Your task to perform on an android device: turn pop-ups on in chrome Image 0: 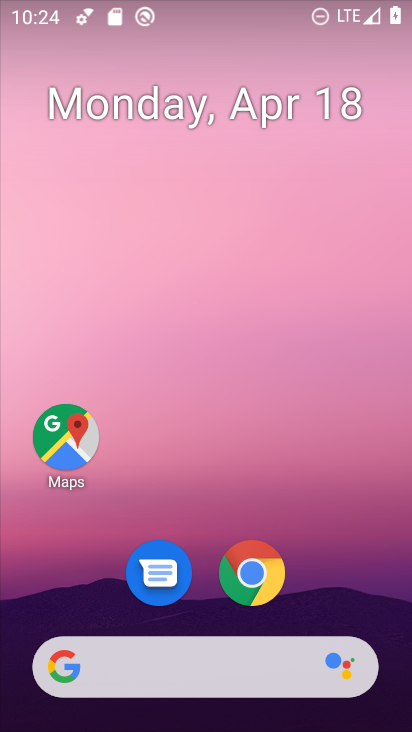
Step 0: drag from (364, 588) to (288, 24)
Your task to perform on an android device: turn pop-ups on in chrome Image 1: 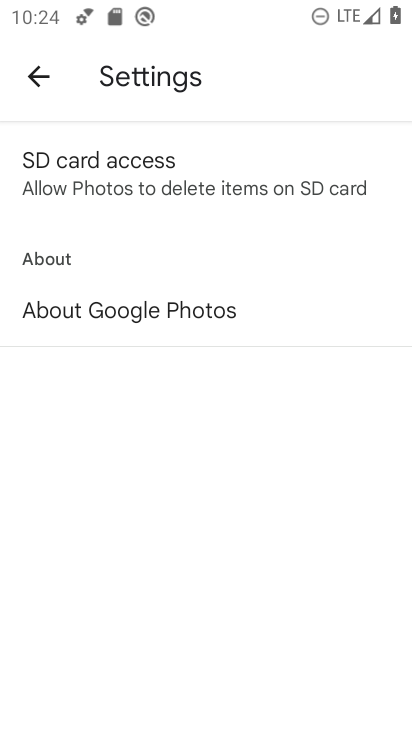
Step 1: press home button
Your task to perform on an android device: turn pop-ups on in chrome Image 2: 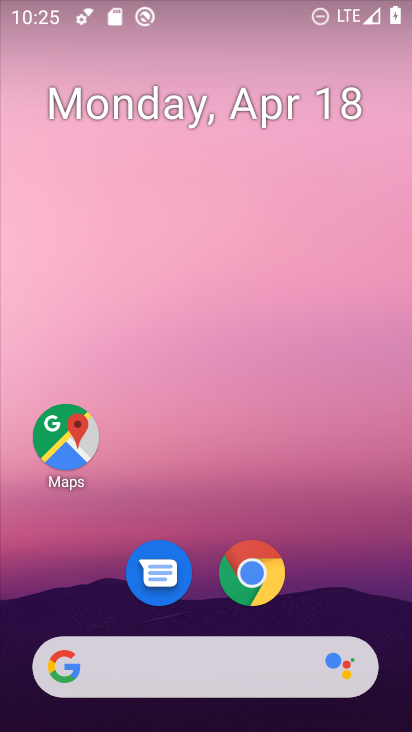
Step 2: drag from (339, 603) to (225, 84)
Your task to perform on an android device: turn pop-ups on in chrome Image 3: 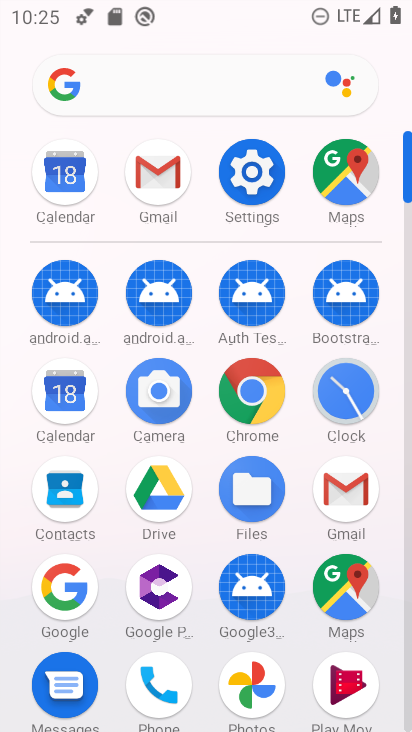
Step 3: click (269, 396)
Your task to perform on an android device: turn pop-ups on in chrome Image 4: 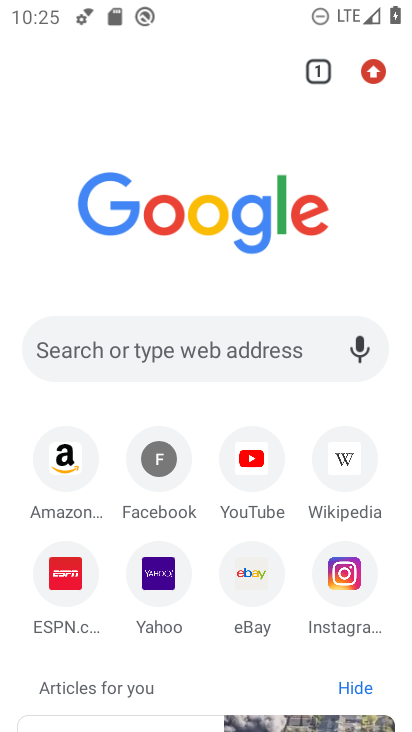
Step 4: click (369, 69)
Your task to perform on an android device: turn pop-ups on in chrome Image 5: 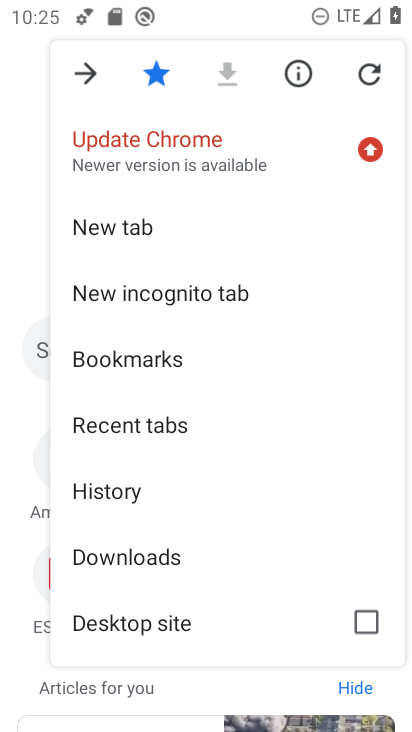
Step 5: drag from (158, 590) to (214, 181)
Your task to perform on an android device: turn pop-ups on in chrome Image 6: 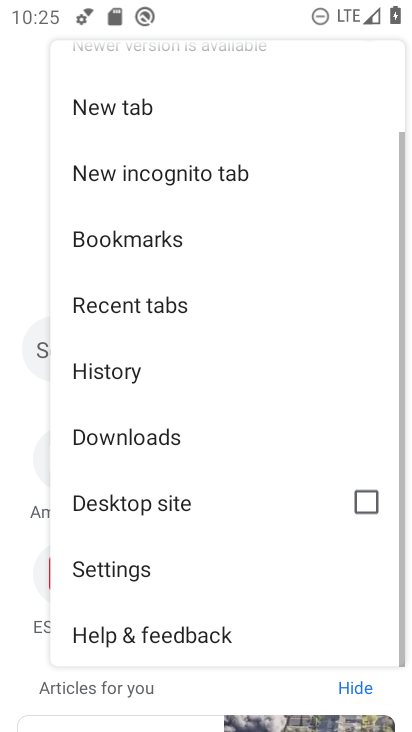
Step 6: click (157, 560)
Your task to perform on an android device: turn pop-ups on in chrome Image 7: 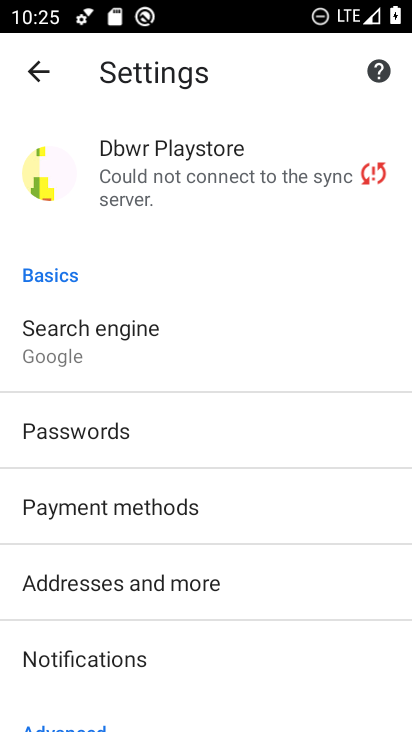
Step 7: drag from (193, 631) to (169, 161)
Your task to perform on an android device: turn pop-ups on in chrome Image 8: 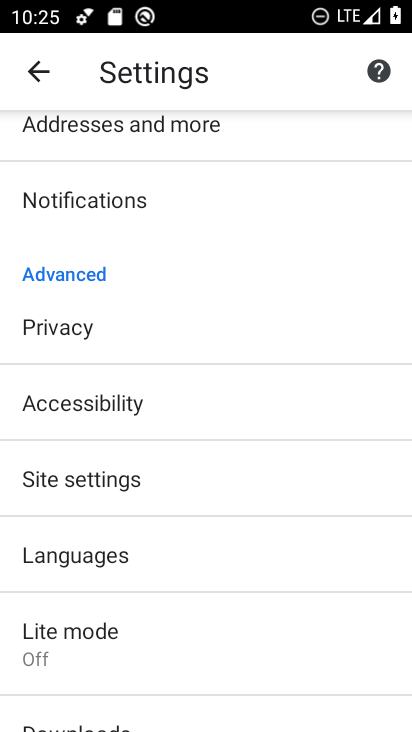
Step 8: click (162, 479)
Your task to perform on an android device: turn pop-ups on in chrome Image 9: 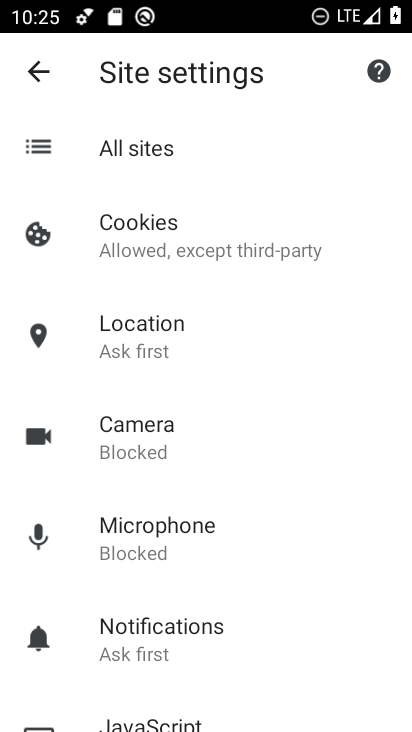
Step 9: drag from (167, 642) to (209, 163)
Your task to perform on an android device: turn pop-ups on in chrome Image 10: 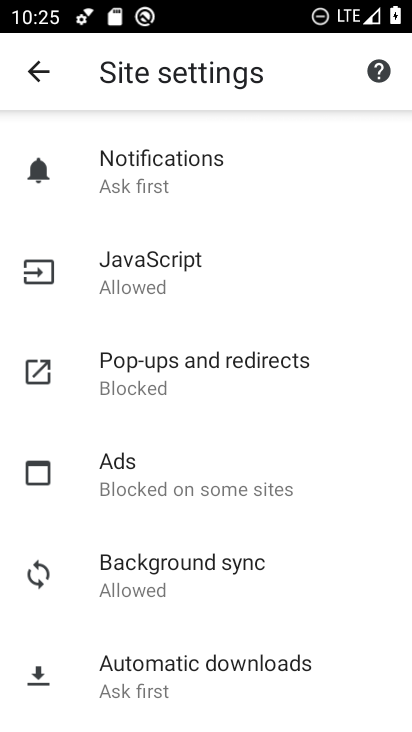
Step 10: click (216, 382)
Your task to perform on an android device: turn pop-ups on in chrome Image 11: 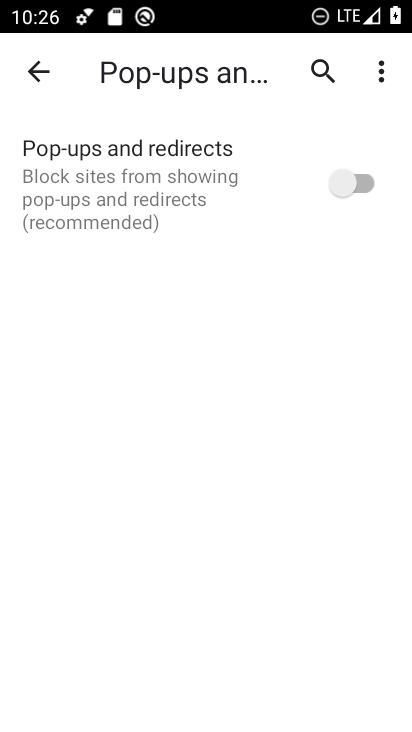
Step 11: click (344, 189)
Your task to perform on an android device: turn pop-ups on in chrome Image 12: 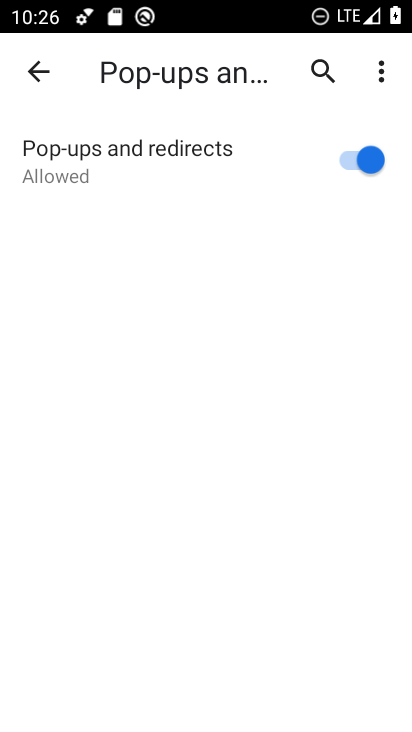
Step 12: task complete